Your task to perform on an android device: Search for a new eyeliner Image 0: 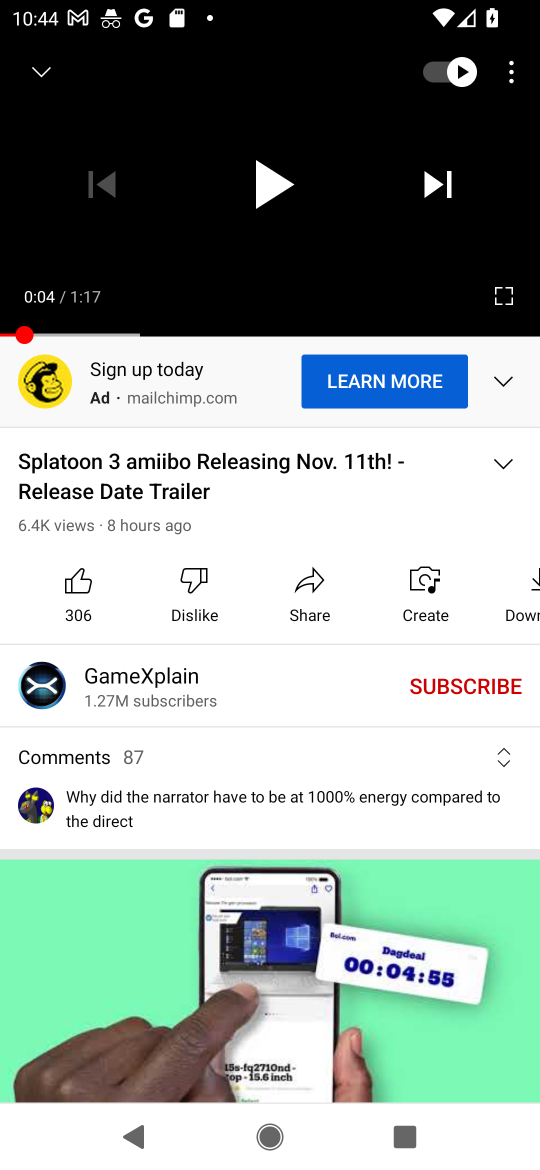
Step 0: press home button
Your task to perform on an android device: Search for a new eyeliner Image 1: 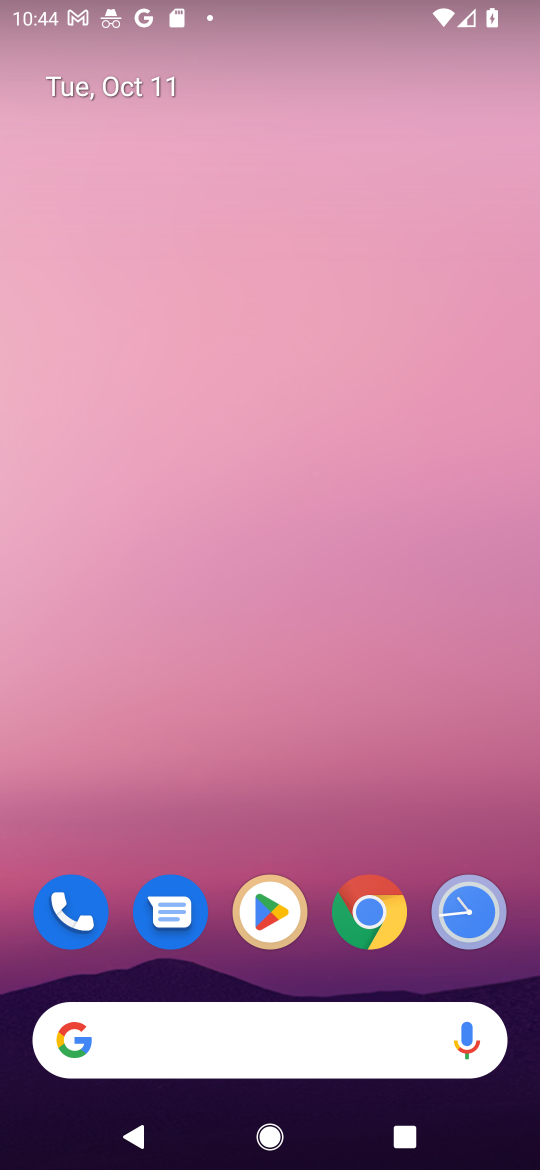
Step 1: click (372, 915)
Your task to perform on an android device: Search for a new eyeliner Image 2: 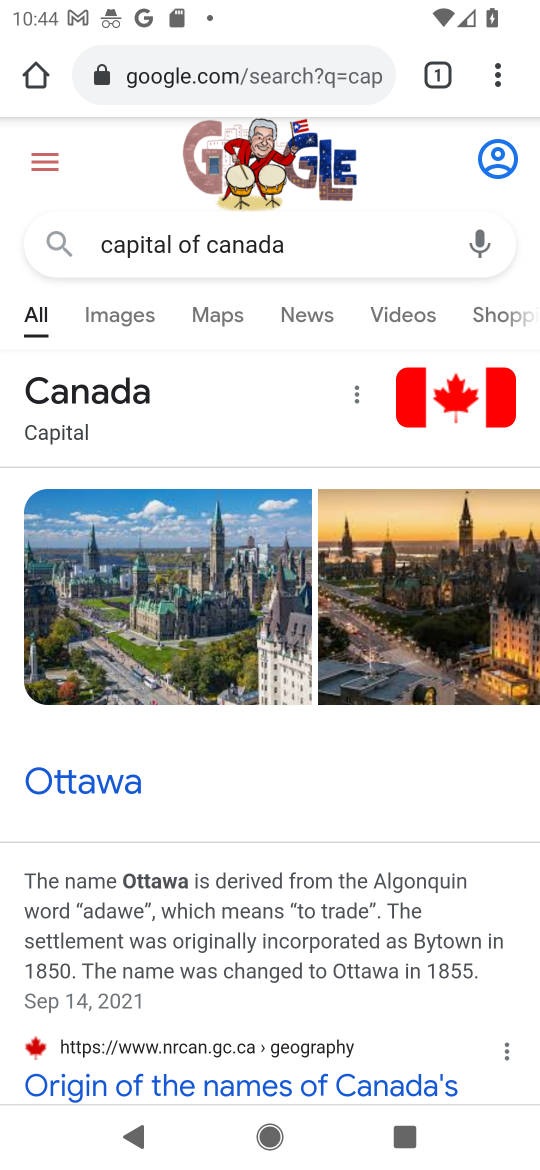
Step 2: click (237, 58)
Your task to perform on an android device: Search for a new eyeliner Image 3: 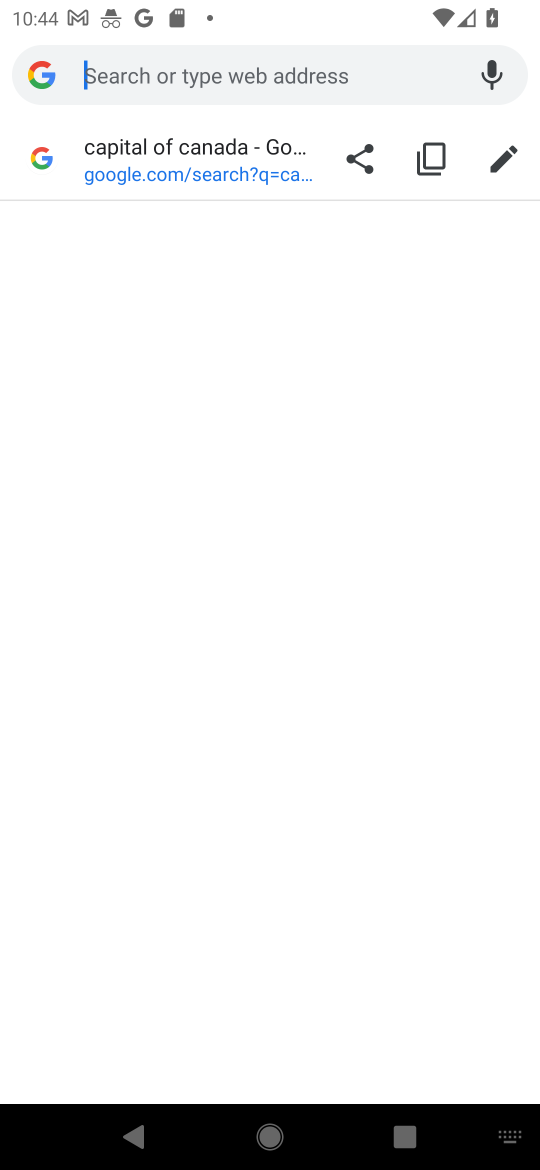
Step 3: type " new eyeliner"
Your task to perform on an android device: Search for a new eyeliner Image 4: 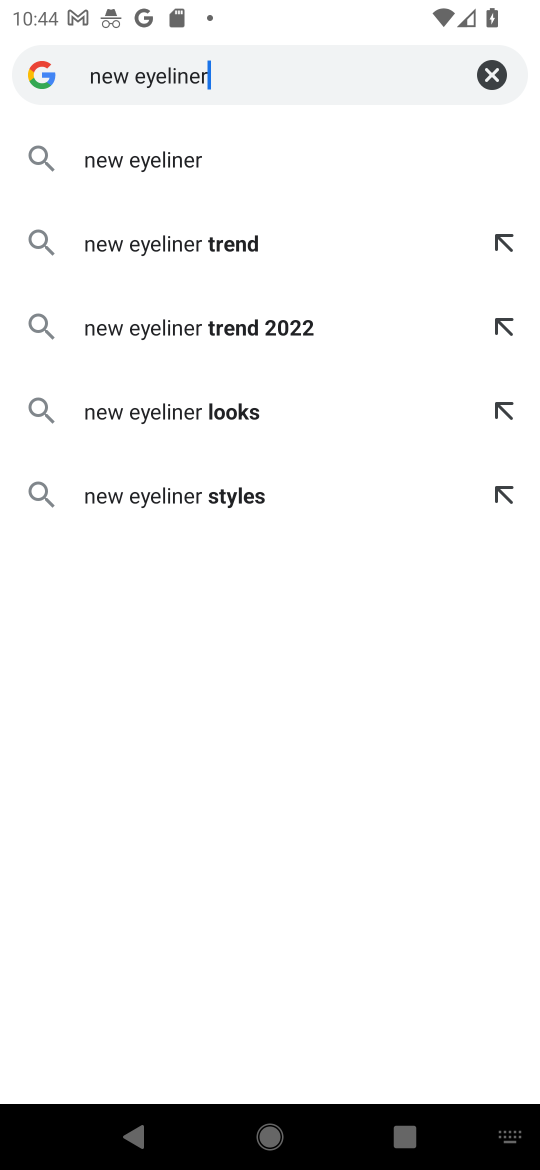
Step 4: click (127, 151)
Your task to perform on an android device: Search for a new eyeliner Image 5: 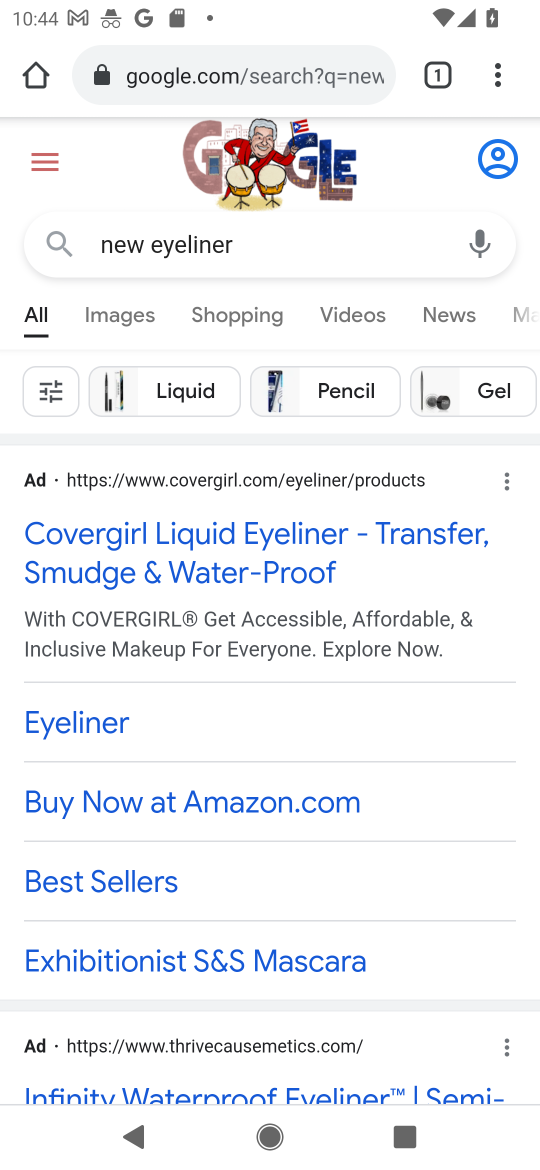
Step 5: drag from (265, 982) to (258, 309)
Your task to perform on an android device: Search for a new eyeliner Image 6: 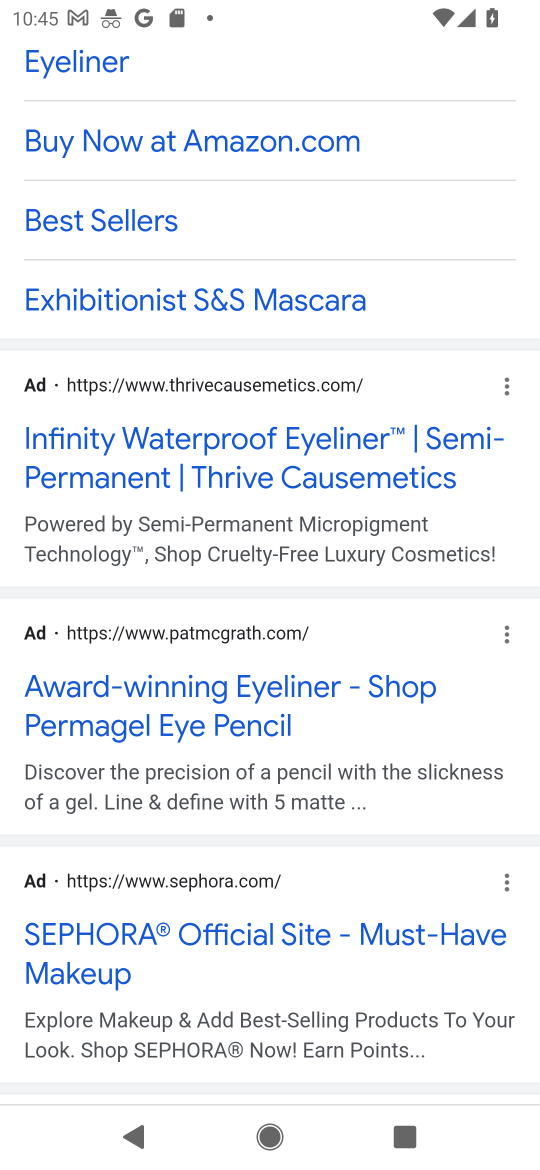
Step 6: click (143, 923)
Your task to perform on an android device: Search for a new eyeliner Image 7: 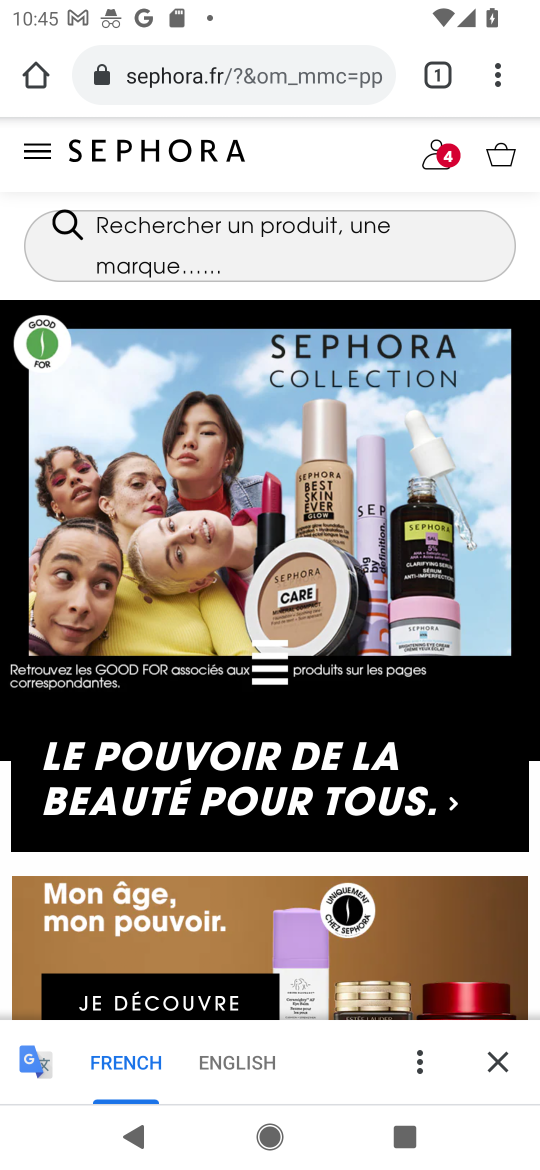
Step 7: click (243, 1053)
Your task to perform on an android device: Search for a new eyeliner Image 8: 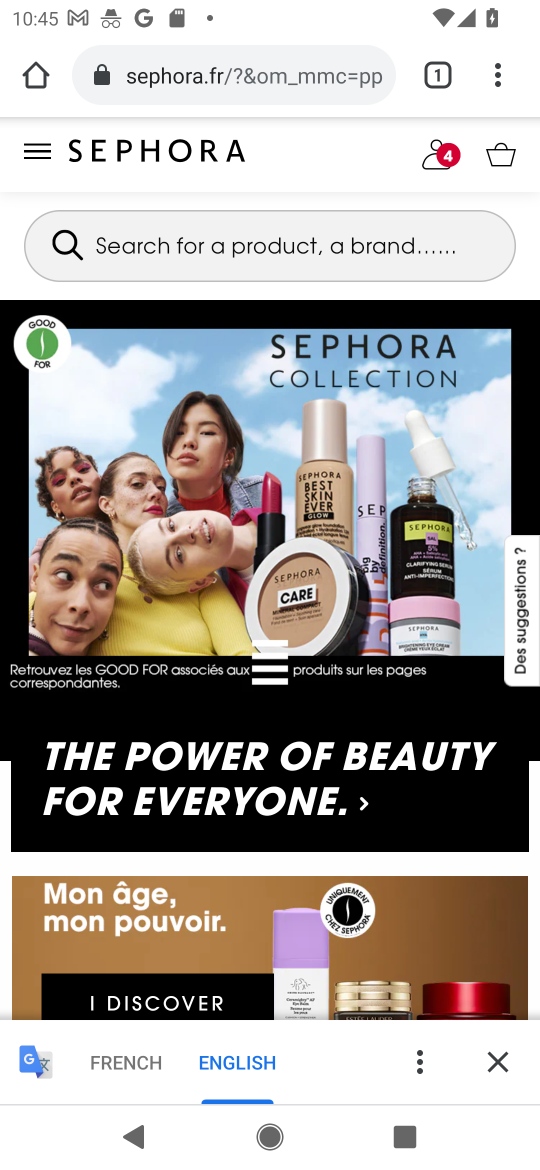
Step 8: click (183, 235)
Your task to perform on an android device: Search for a new eyeliner Image 9: 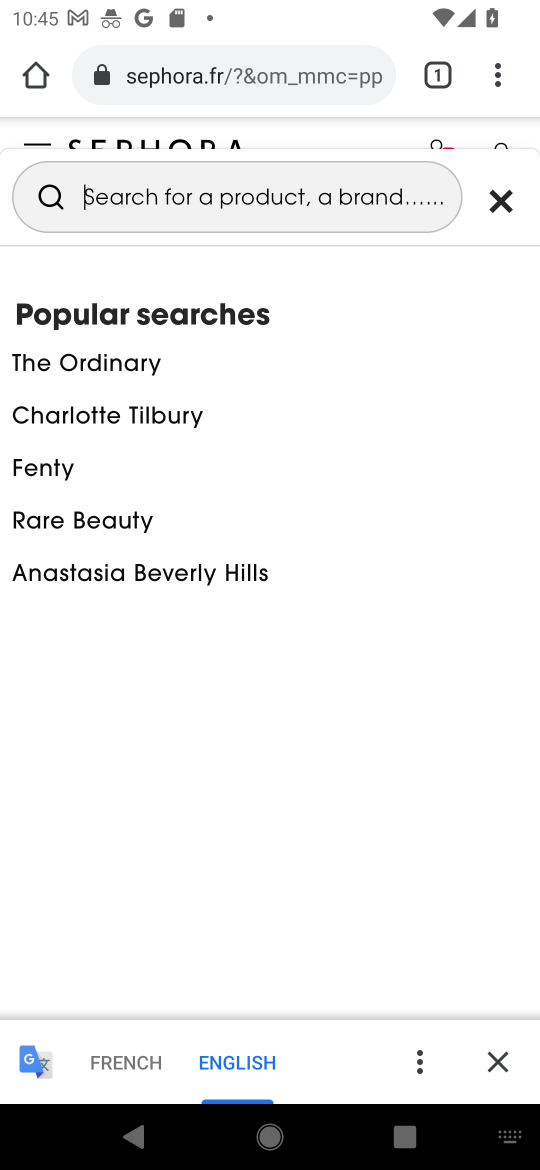
Step 9: type " new eyeliner"
Your task to perform on an android device: Search for a new eyeliner Image 10: 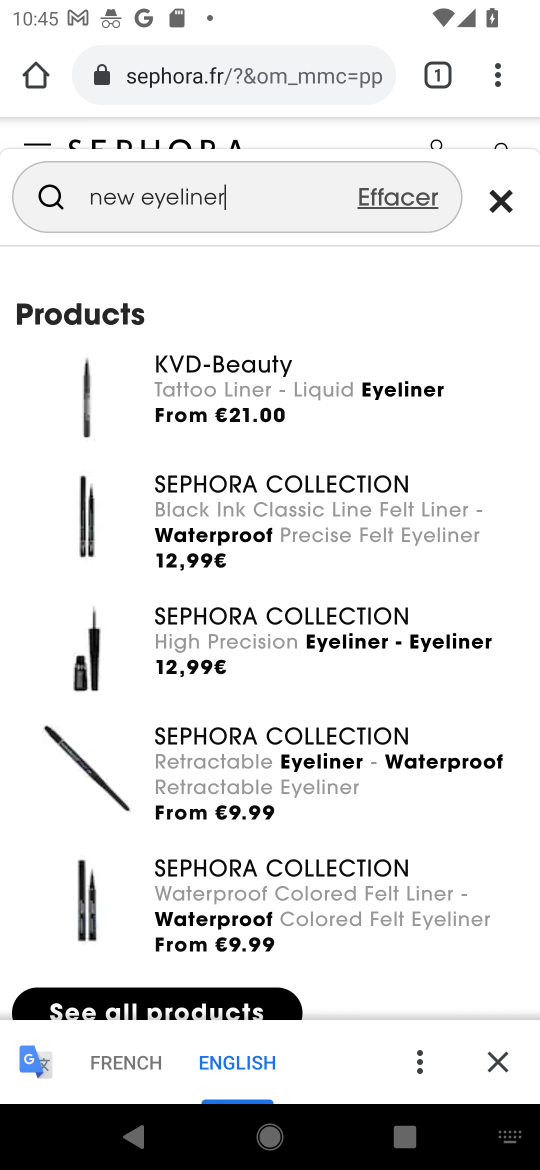
Step 10: click (214, 719)
Your task to perform on an android device: Search for a new eyeliner Image 11: 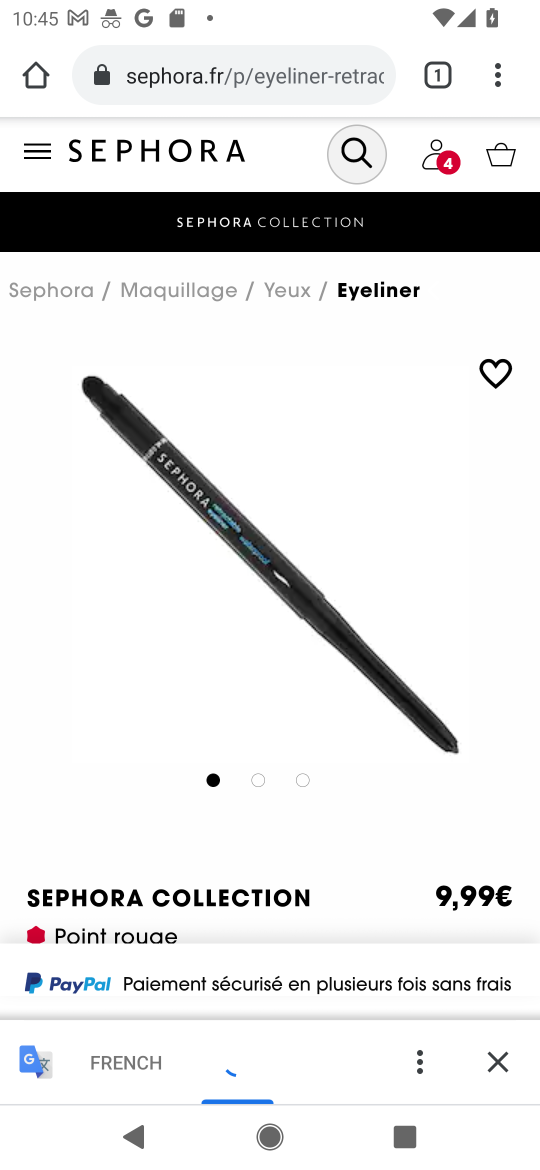
Step 11: task complete